Your task to perform on an android device: Go to Reddit.com Image 0: 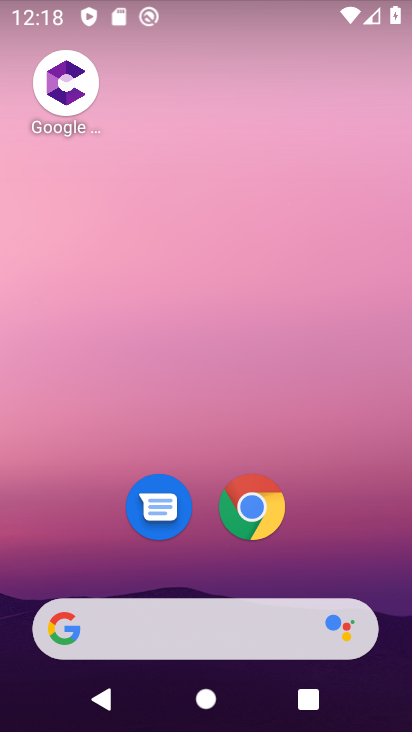
Step 0: click (263, 510)
Your task to perform on an android device: Go to Reddit.com Image 1: 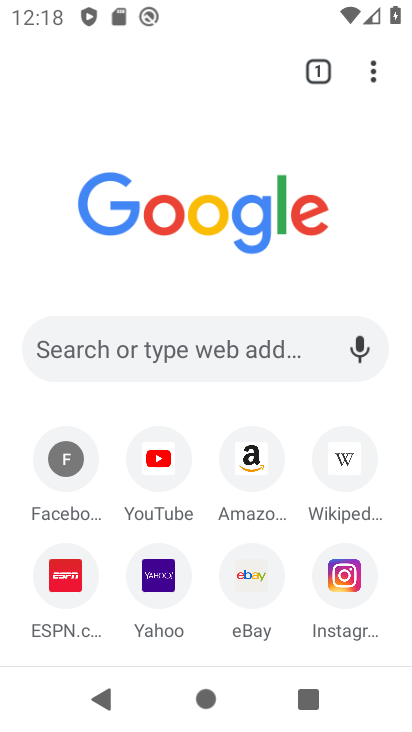
Step 1: drag from (301, 425) to (277, 372)
Your task to perform on an android device: Go to Reddit.com Image 2: 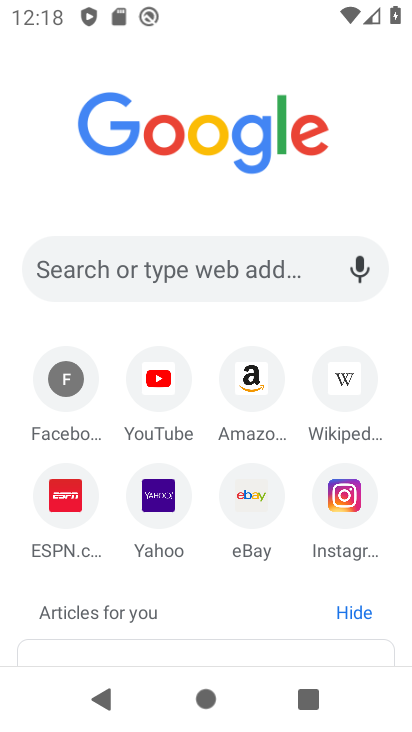
Step 2: click (207, 260)
Your task to perform on an android device: Go to Reddit.com Image 3: 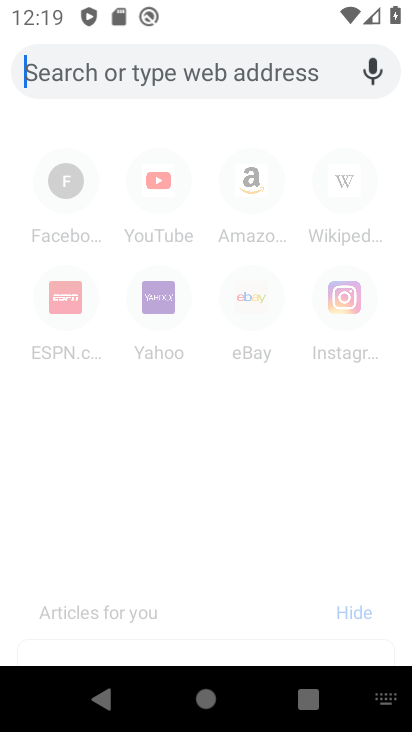
Step 3: type "reddit.com"
Your task to perform on an android device: Go to Reddit.com Image 4: 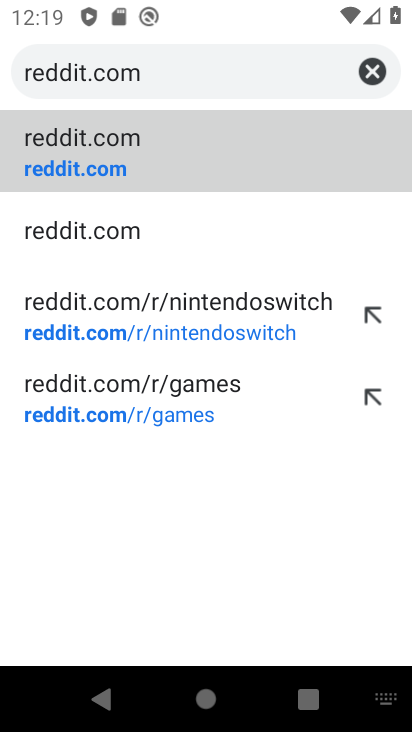
Step 4: click (347, 137)
Your task to perform on an android device: Go to Reddit.com Image 5: 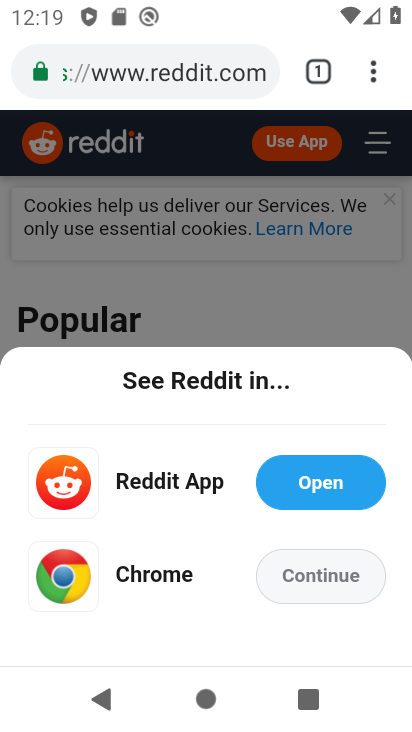
Step 5: click (374, 304)
Your task to perform on an android device: Go to Reddit.com Image 6: 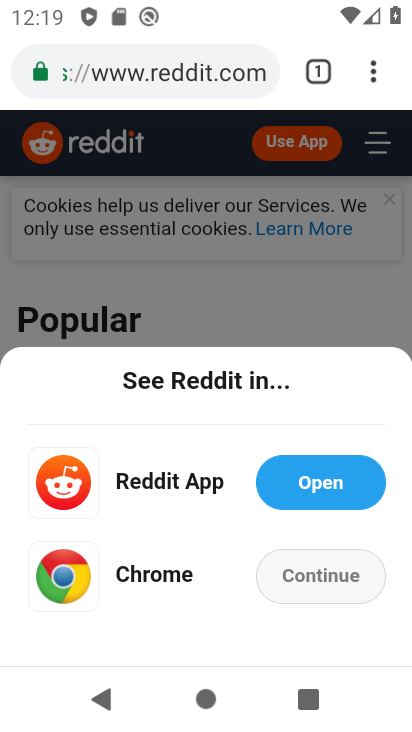
Step 6: task complete